Your task to perform on an android device: Open privacy settings Image 0: 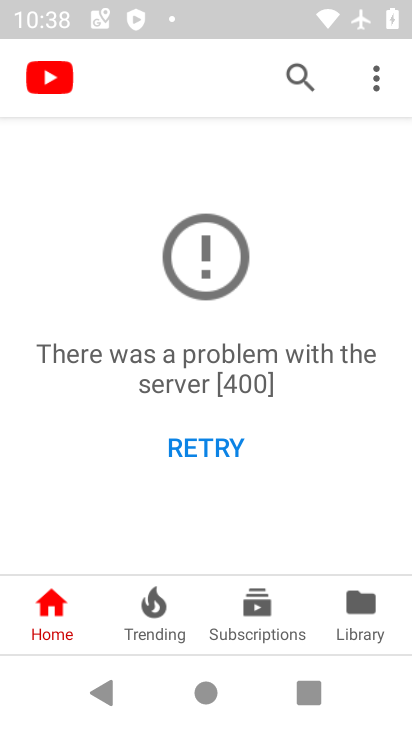
Step 0: press home button
Your task to perform on an android device: Open privacy settings Image 1: 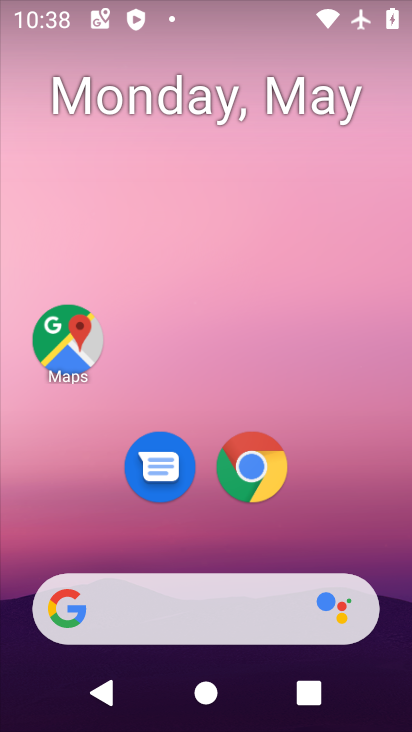
Step 1: drag from (314, 530) to (142, 0)
Your task to perform on an android device: Open privacy settings Image 2: 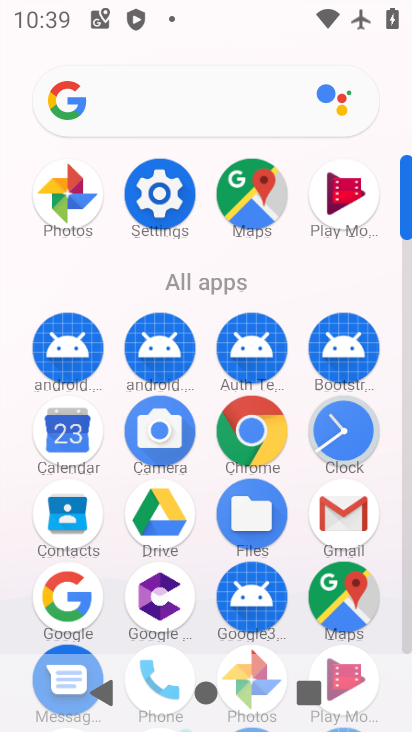
Step 2: click (163, 187)
Your task to perform on an android device: Open privacy settings Image 3: 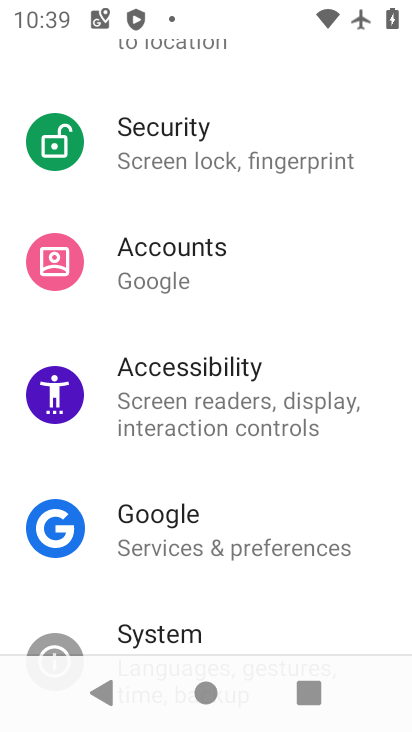
Step 3: drag from (230, 250) to (293, 420)
Your task to perform on an android device: Open privacy settings Image 4: 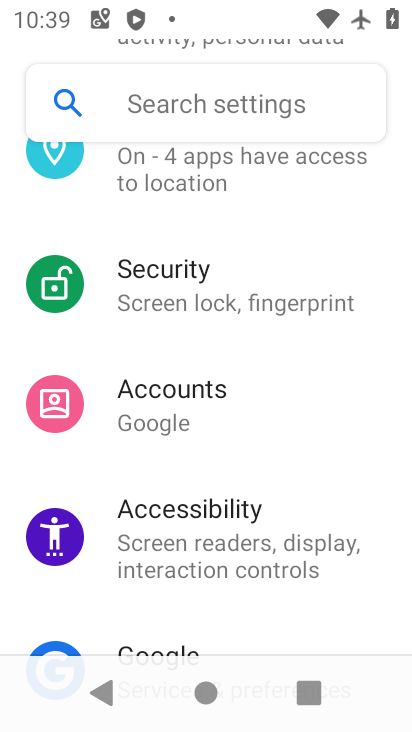
Step 4: drag from (253, 262) to (272, 449)
Your task to perform on an android device: Open privacy settings Image 5: 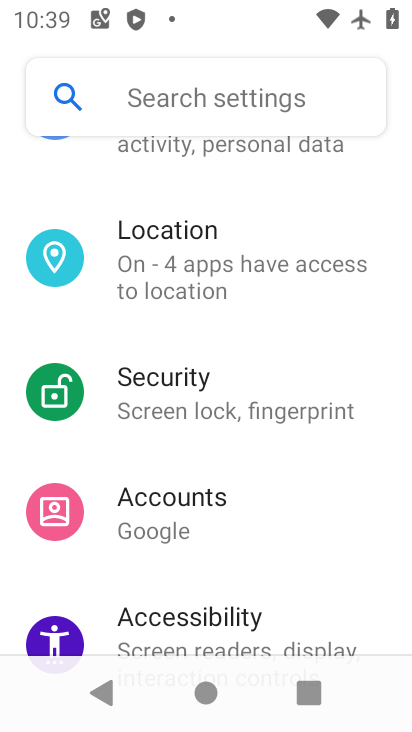
Step 5: drag from (248, 243) to (266, 496)
Your task to perform on an android device: Open privacy settings Image 6: 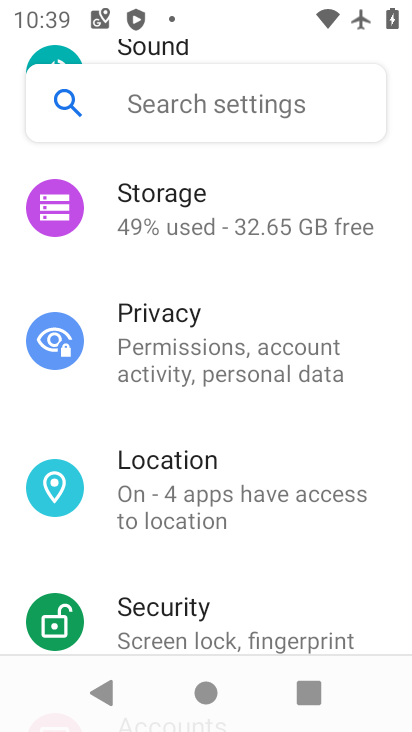
Step 6: click (210, 329)
Your task to perform on an android device: Open privacy settings Image 7: 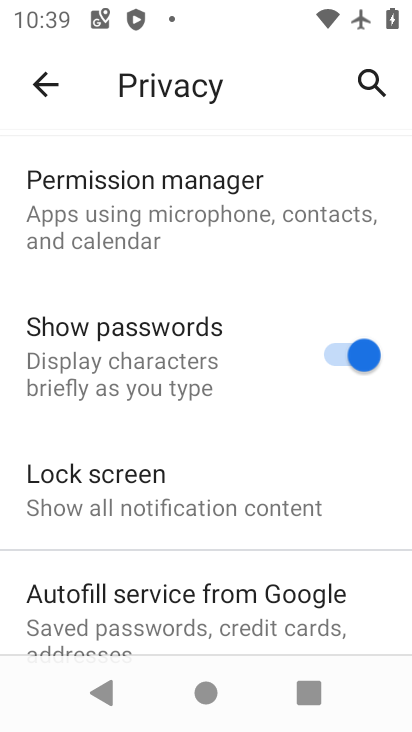
Step 7: task complete